Your task to perform on an android device: turn off wifi Image 0: 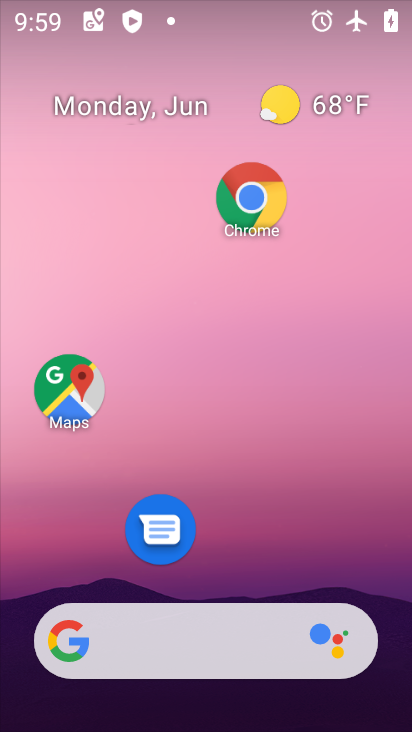
Step 0: drag from (214, 572) to (226, 109)
Your task to perform on an android device: turn off wifi Image 1: 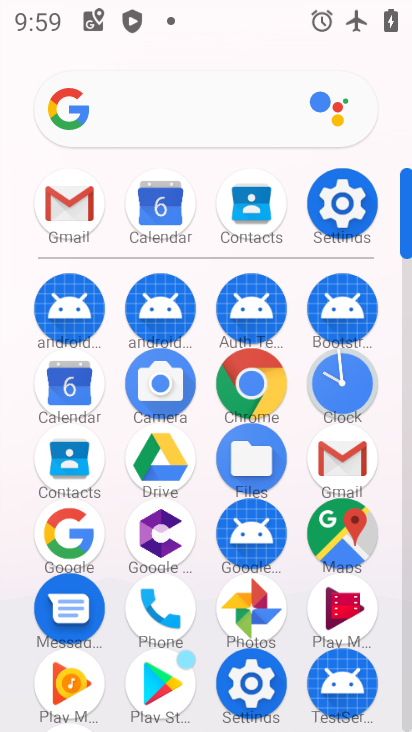
Step 1: click (345, 200)
Your task to perform on an android device: turn off wifi Image 2: 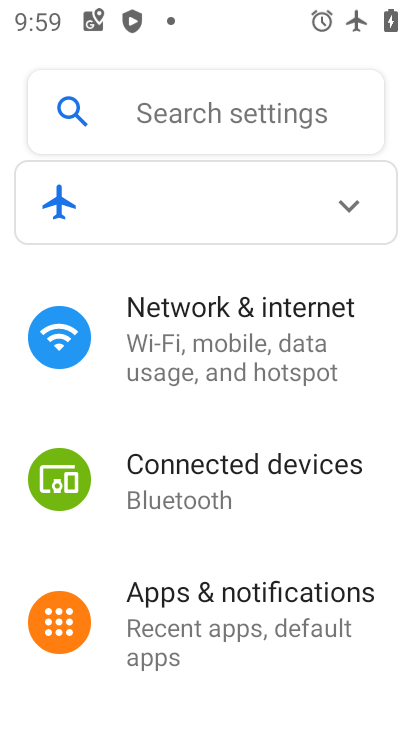
Step 2: click (206, 357)
Your task to perform on an android device: turn off wifi Image 3: 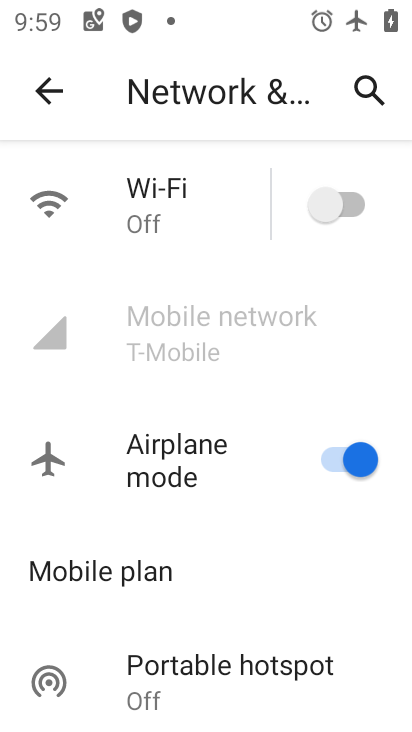
Step 3: task complete